Your task to perform on an android device: Open the calendar and show me this week's events? Image 0: 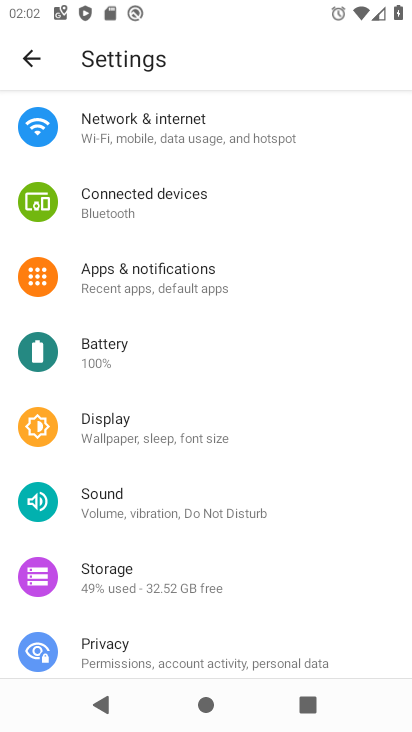
Step 0: press home button
Your task to perform on an android device: Open the calendar and show me this week's events? Image 1: 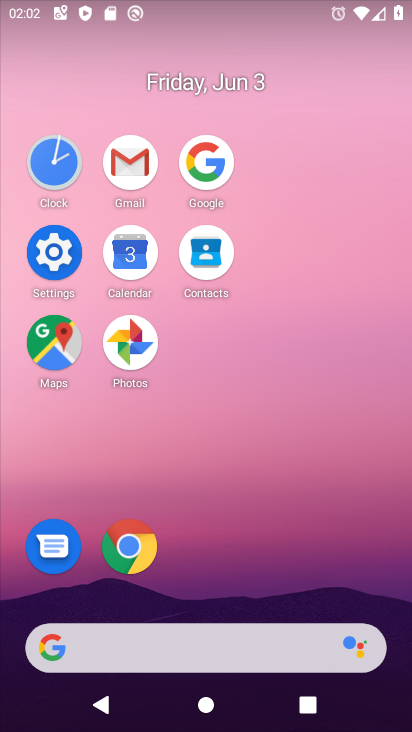
Step 1: click (148, 245)
Your task to perform on an android device: Open the calendar and show me this week's events? Image 2: 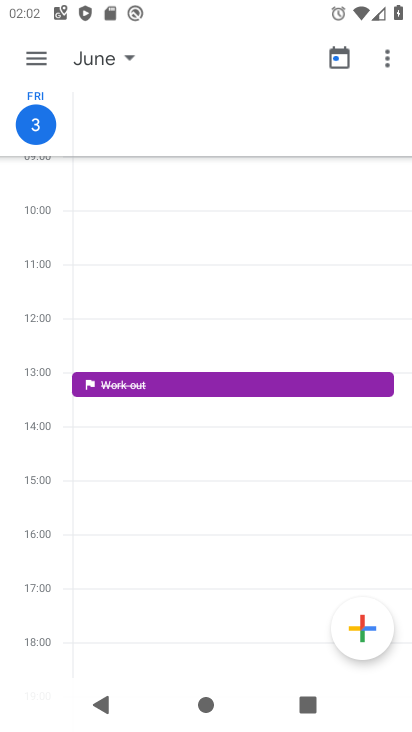
Step 2: click (36, 47)
Your task to perform on an android device: Open the calendar and show me this week's events? Image 3: 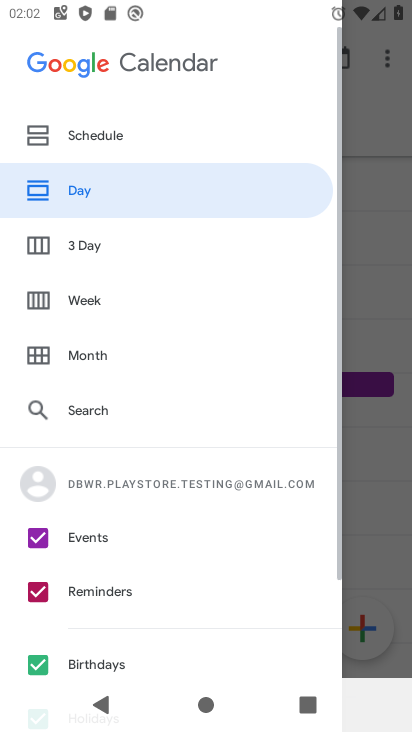
Step 3: click (96, 286)
Your task to perform on an android device: Open the calendar and show me this week's events? Image 4: 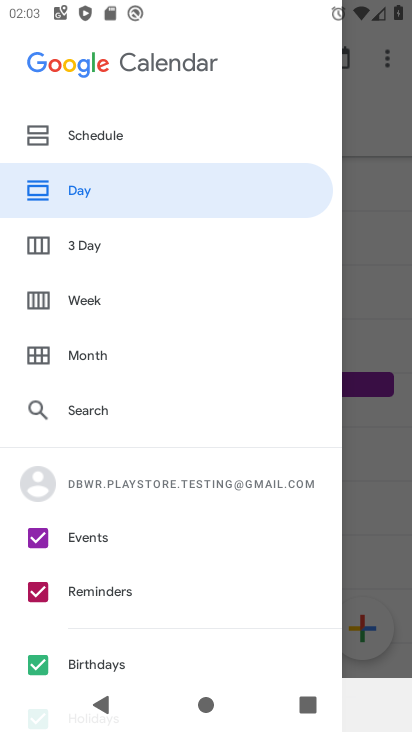
Step 4: click (110, 304)
Your task to perform on an android device: Open the calendar and show me this week's events? Image 5: 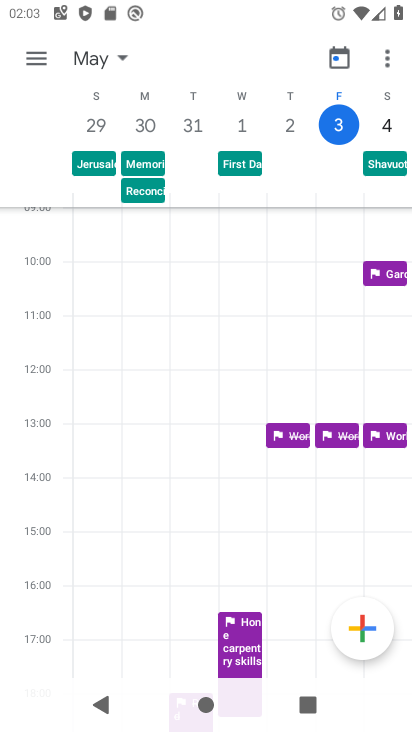
Step 5: task complete